Your task to perform on an android device: Open Google Chrome and open the bookmarks view Image 0: 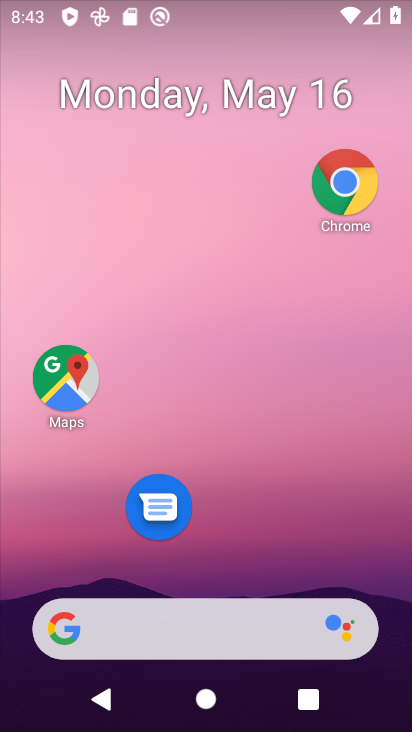
Step 0: click (358, 181)
Your task to perform on an android device: Open Google Chrome and open the bookmarks view Image 1: 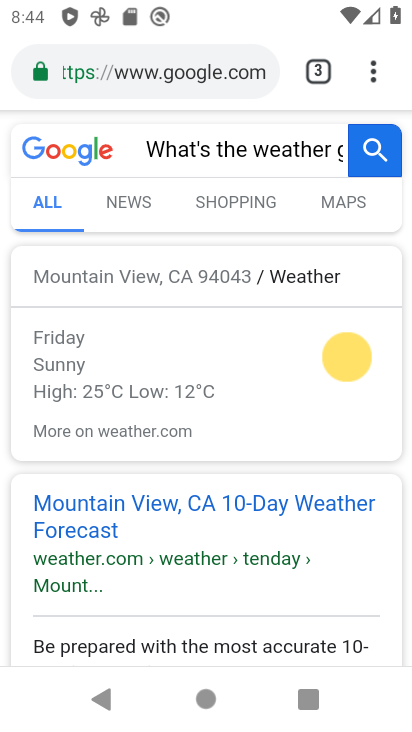
Step 1: task complete